Your task to perform on an android device: create a new album in the google photos Image 0: 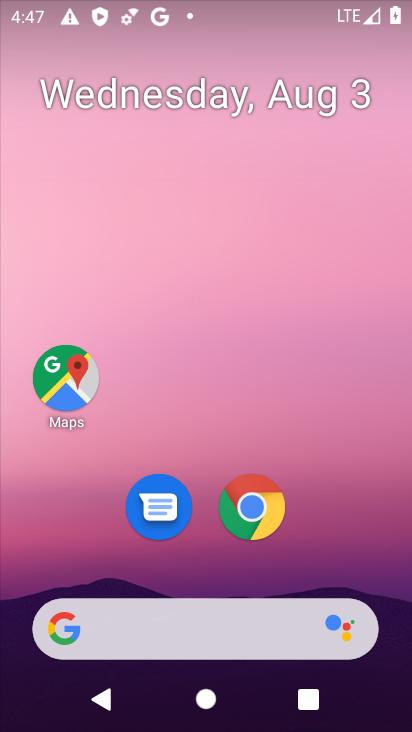
Step 0: drag from (328, 471) to (291, 14)
Your task to perform on an android device: create a new album in the google photos Image 1: 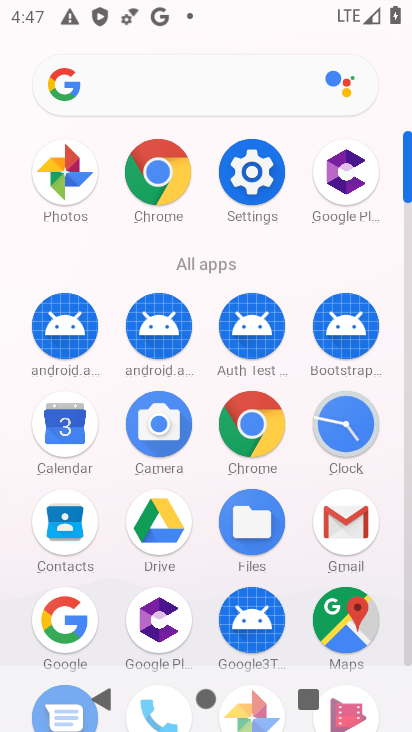
Step 1: drag from (294, 599) to (294, 230)
Your task to perform on an android device: create a new album in the google photos Image 2: 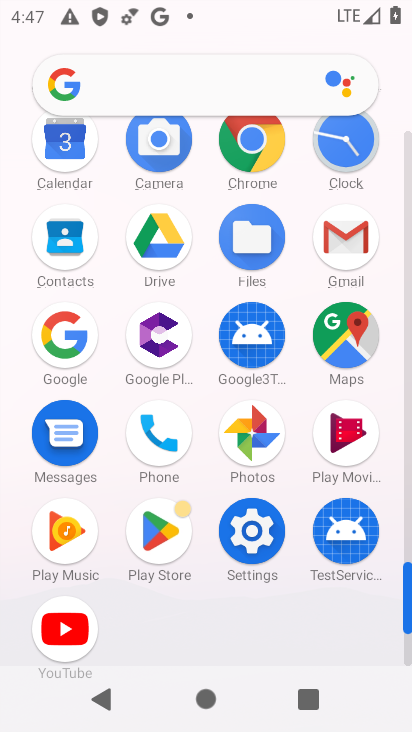
Step 2: click (255, 434)
Your task to perform on an android device: create a new album in the google photos Image 3: 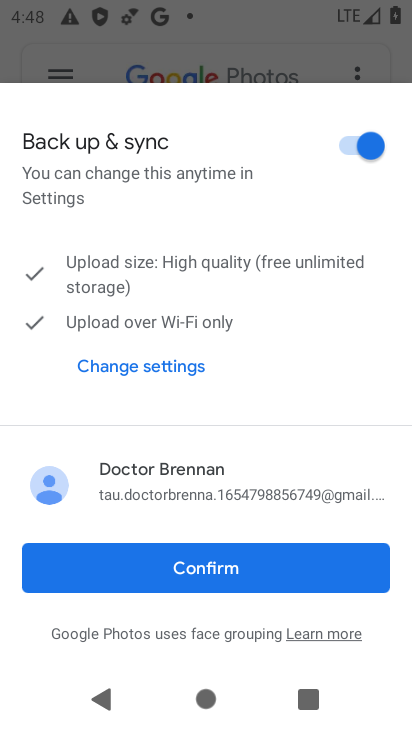
Step 3: click (317, 557)
Your task to perform on an android device: create a new album in the google photos Image 4: 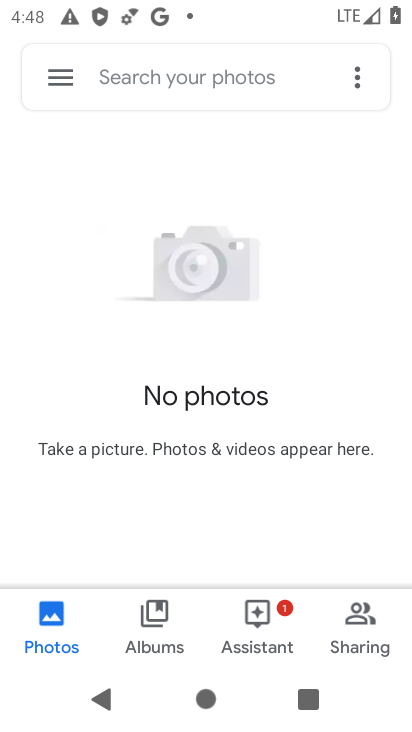
Step 4: click (181, 609)
Your task to perform on an android device: create a new album in the google photos Image 5: 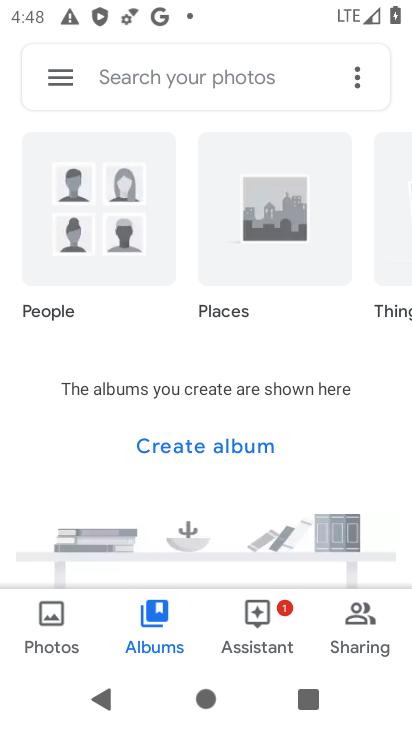
Step 5: click (234, 445)
Your task to perform on an android device: create a new album in the google photos Image 6: 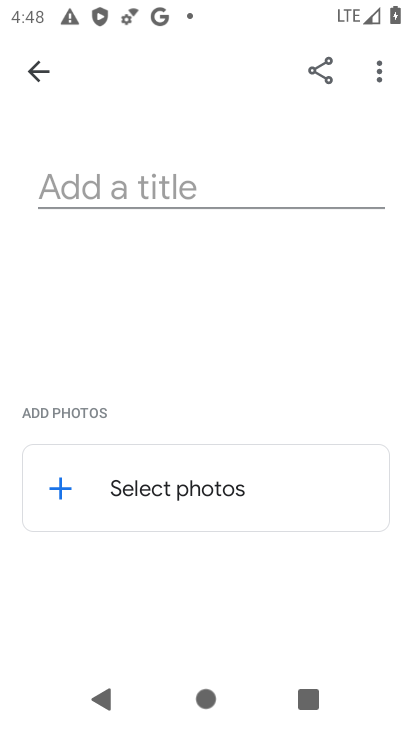
Step 6: click (269, 195)
Your task to perform on an android device: create a new album in the google photos Image 7: 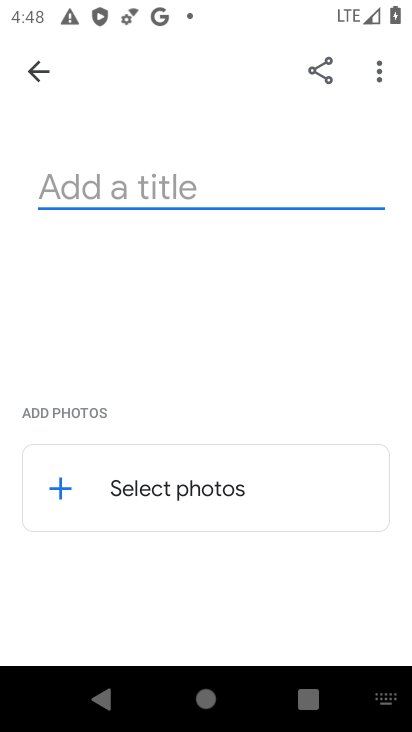
Step 7: type "joseph"
Your task to perform on an android device: create a new album in the google photos Image 8: 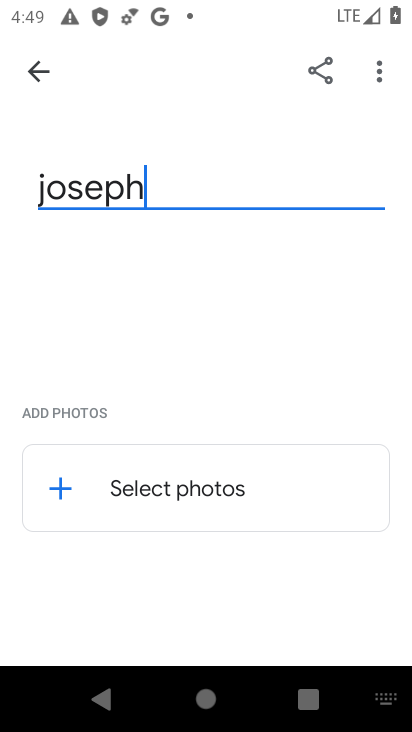
Step 8: click (34, 66)
Your task to perform on an android device: create a new album in the google photos Image 9: 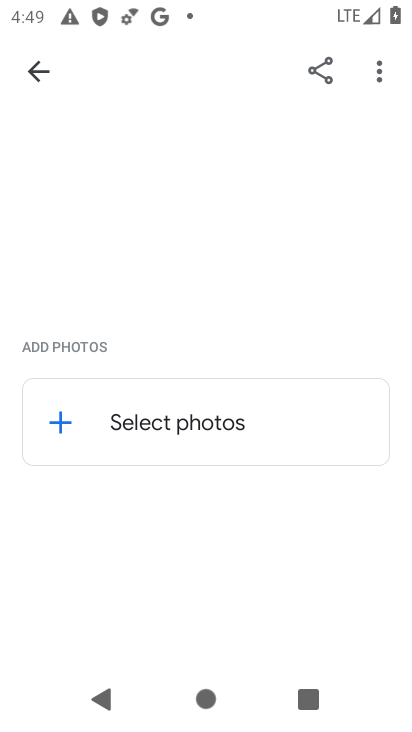
Step 9: task complete